Your task to perform on an android device: toggle pop-ups in chrome Image 0: 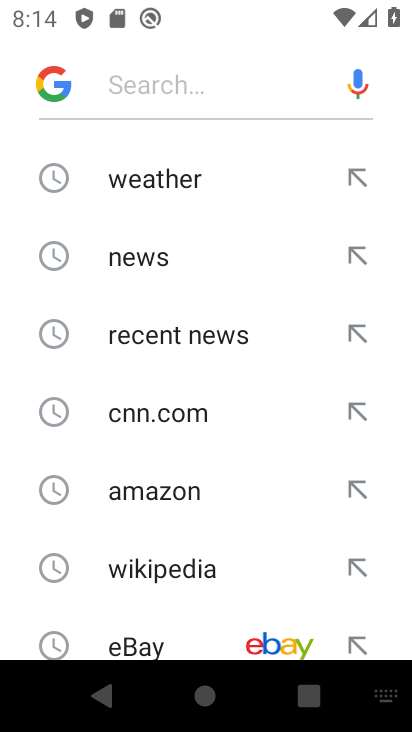
Step 0: press back button
Your task to perform on an android device: toggle pop-ups in chrome Image 1: 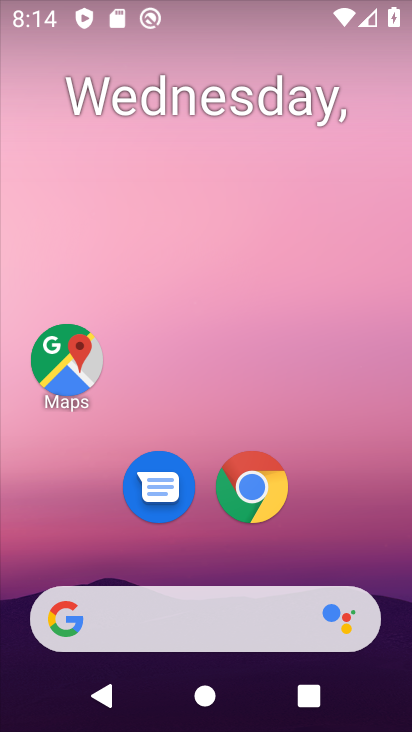
Step 1: drag from (269, 678) to (211, 145)
Your task to perform on an android device: toggle pop-ups in chrome Image 2: 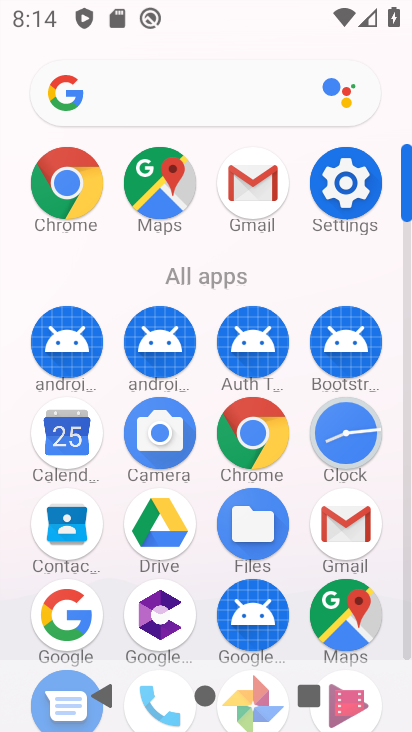
Step 2: click (69, 207)
Your task to perform on an android device: toggle pop-ups in chrome Image 3: 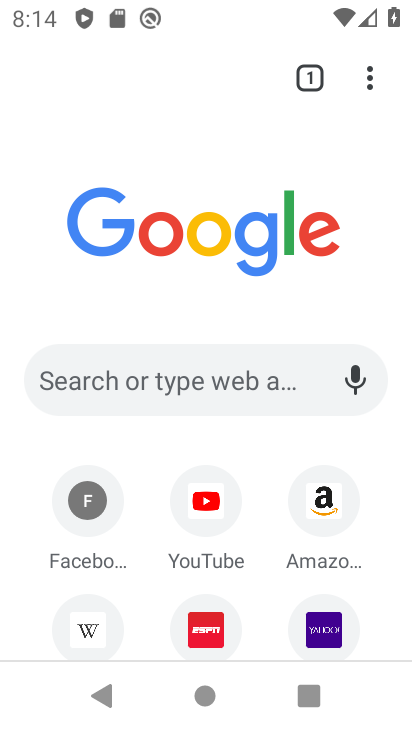
Step 3: drag from (369, 82) to (96, 573)
Your task to perform on an android device: toggle pop-ups in chrome Image 4: 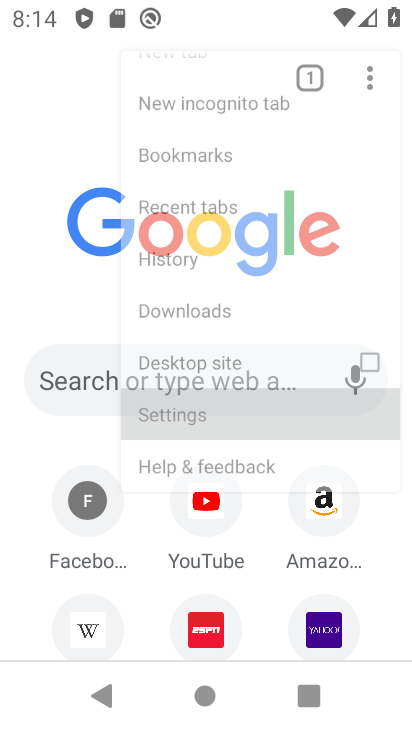
Step 4: click (89, 563)
Your task to perform on an android device: toggle pop-ups in chrome Image 5: 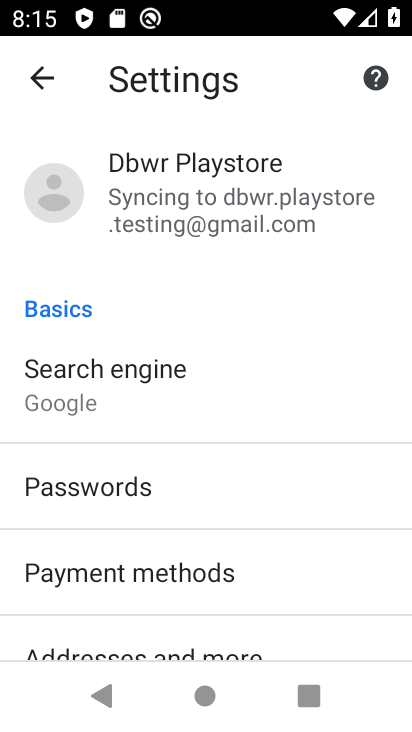
Step 5: drag from (197, 519) to (171, 221)
Your task to perform on an android device: toggle pop-ups in chrome Image 6: 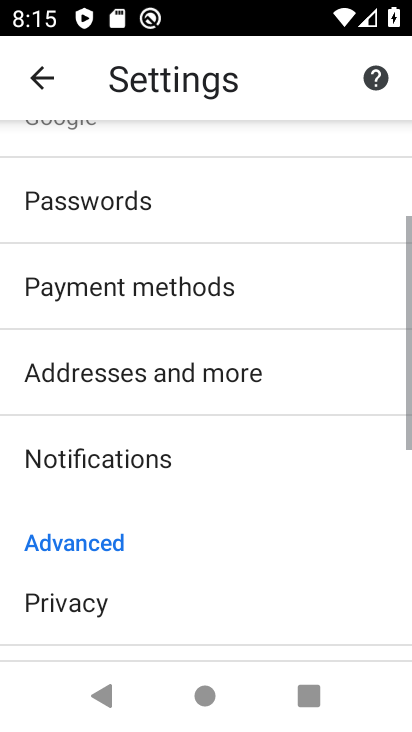
Step 6: drag from (186, 447) to (172, 2)
Your task to perform on an android device: toggle pop-ups in chrome Image 7: 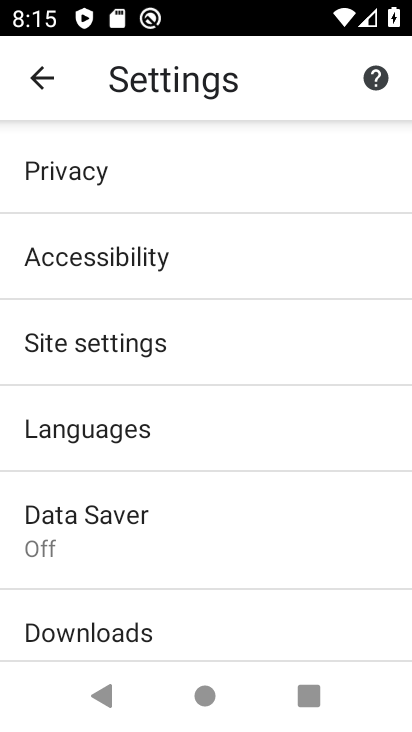
Step 7: click (91, 337)
Your task to perform on an android device: toggle pop-ups in chrome Image 8: 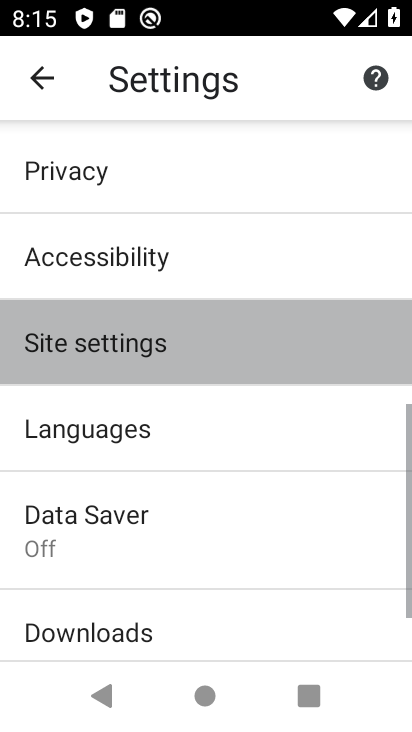
Step 8: click (91, 337)
Your task to perform on an android device: toggle pop-ups in chrome Image 9: 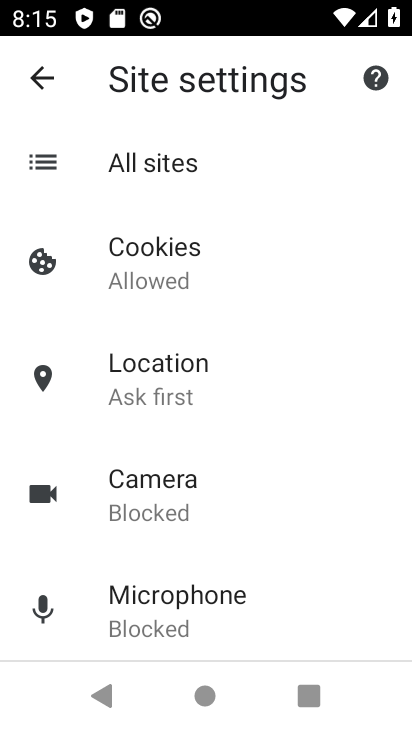
Step 9: drag from (199, 581) to (182, 180)
Your task to perform on an android device: toggle pop-ups in chrome Image 10: 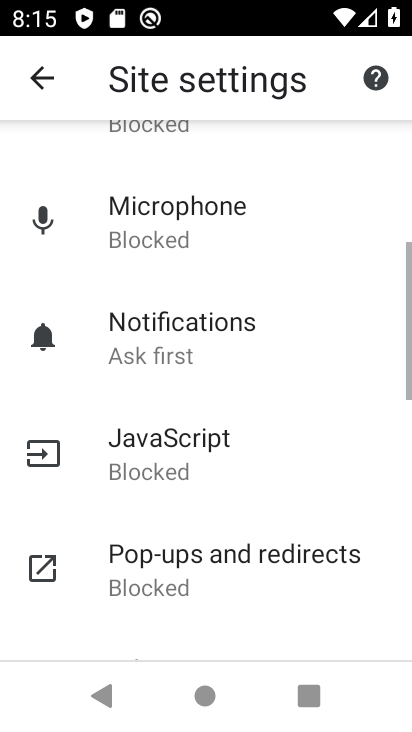
Step 10: click (220, 206)
Your task to perform on an android device: toggle pop-ups in chrome Image 11: 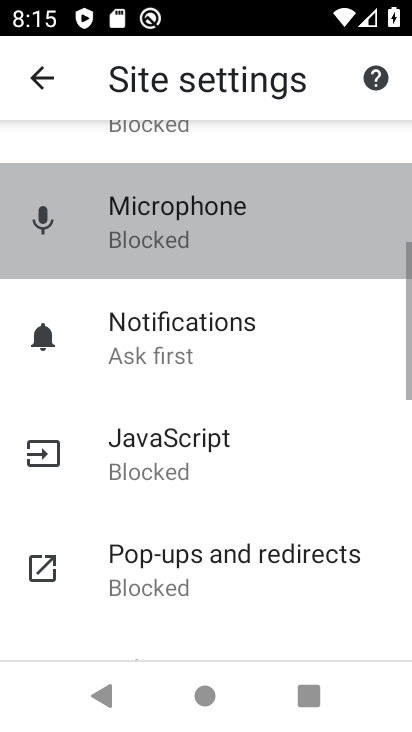
Step 11: drag from (173, 536) to (197, 88)
Your task to perform on an android device: toggle pop-ups in chrome Image 12: 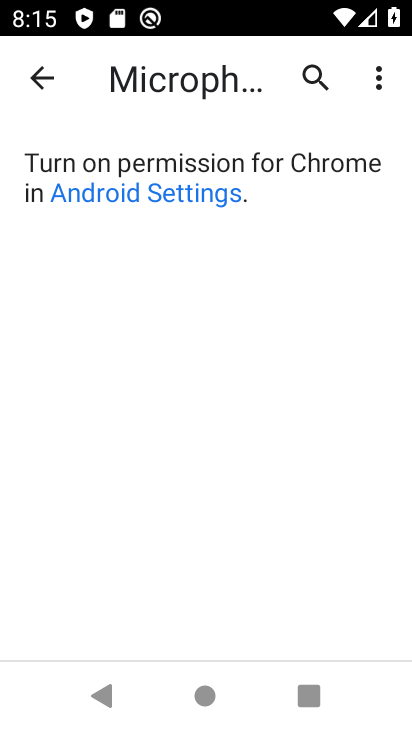
Step 12: click (50, 86)
Your task to perform on an android device: toggle pop-ups in chrome Image 13: 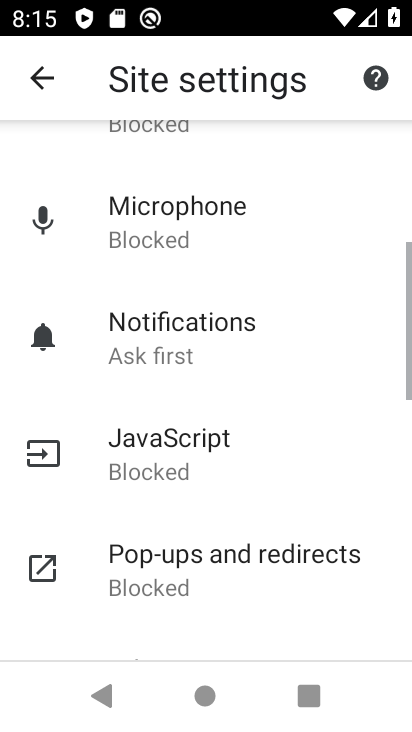
Step 13: click (155, 563)
Your task to perform on an android device: toggle pop-ups in chrome Image 14: 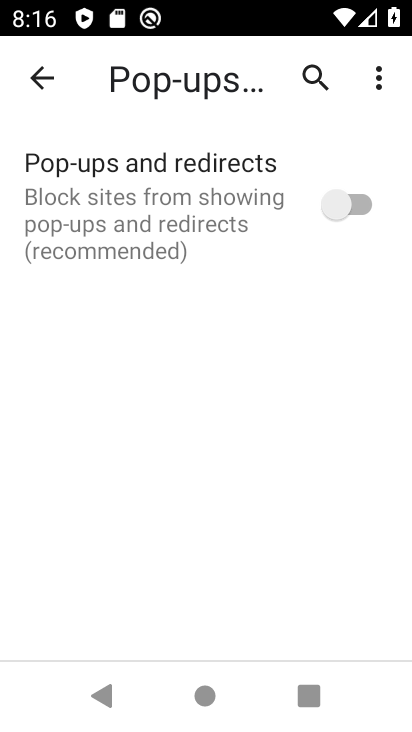
Step 14: click (341, 198)
Your task to perform on an android device: toggle pop-ups in chrome Image 15: 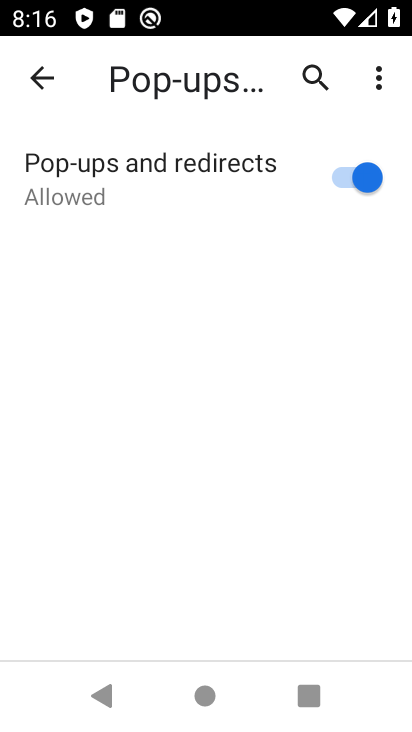
Step 15: task complete